Your task to perform on an android device: open app "Google Sheets" (install if not already installed) Image 0: 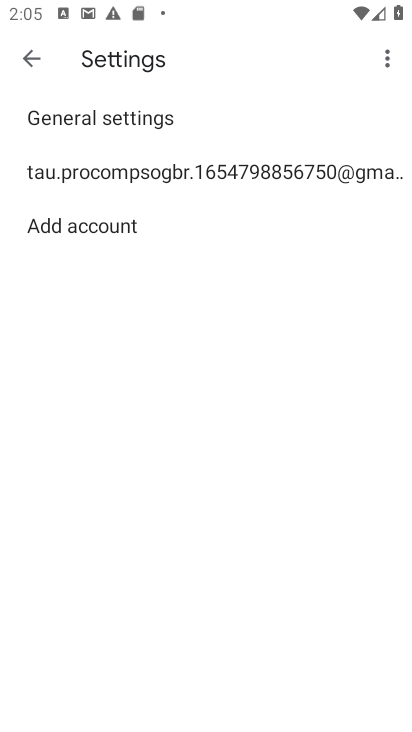
Step 0: click (226, 526)
Your task to perform on an android device: open app "Google Sheets" (install if not already installed) Image 1: 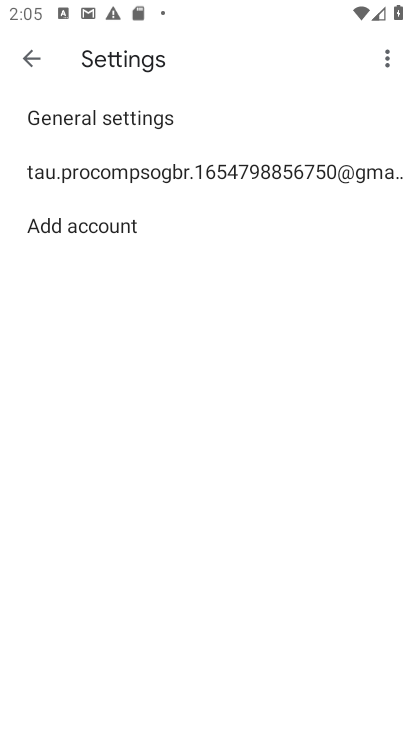
Step 1: press home button
Your task to perform on an android device: open app "Google Sheets" (install if not already installed) Image 2: 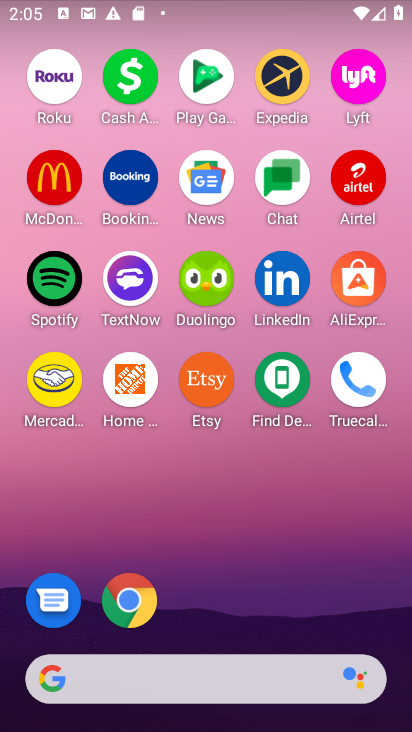
Step 2: drag from (242, 596) to (242, 95)
Your task to perform on an android device: open app "Google Sheets" (install if not already installed) Image 3: 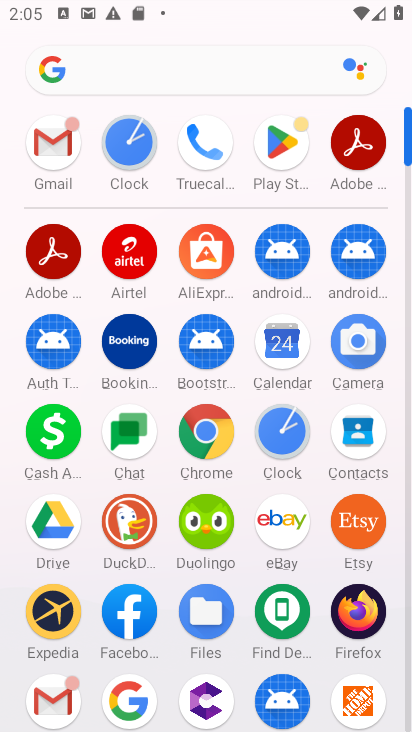
Step 3: click (280, 165)
Your task to perform on an android device: open app "Google Sheets" (install if not already installed) Image 4: 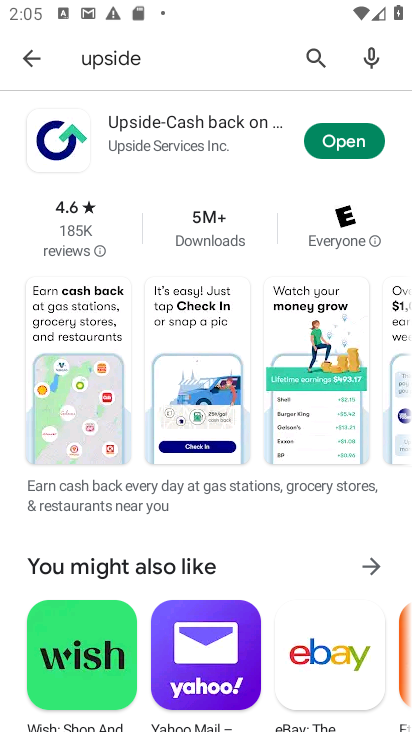
Step 4: click (308, 58)
Your task to perform on an android device: open app "Google Sheets" (install if not already installed) Image 5: 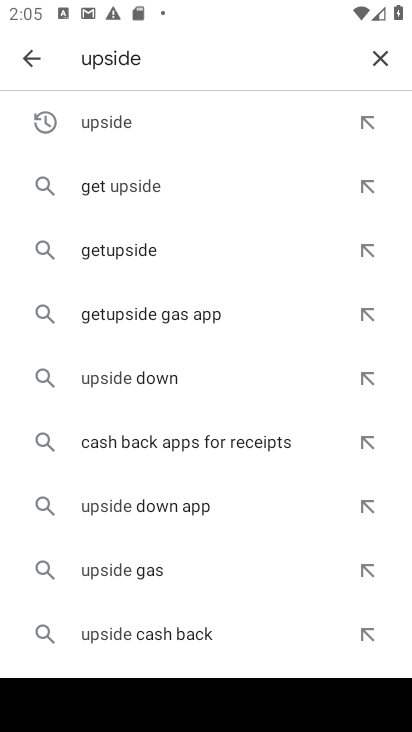
Step 5: click (370, 61)
Your task to perform on an android device: open app "Google Sheets" (install if not already installed) Image 6: 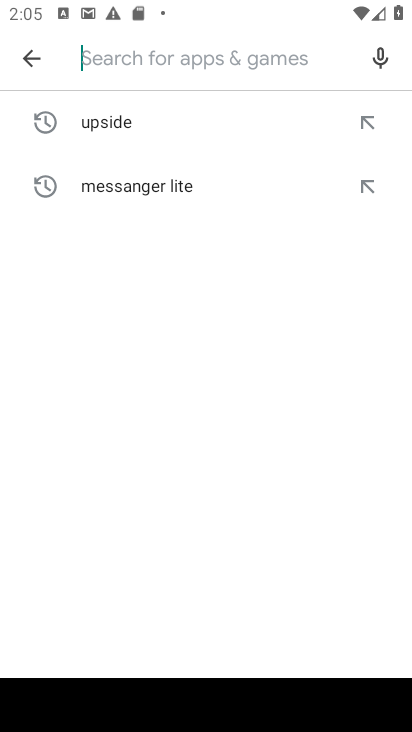
Step 6: type "google play"
Your task to perform on an android device: open app "Google Sheets" (install if not already installed) Image 7: 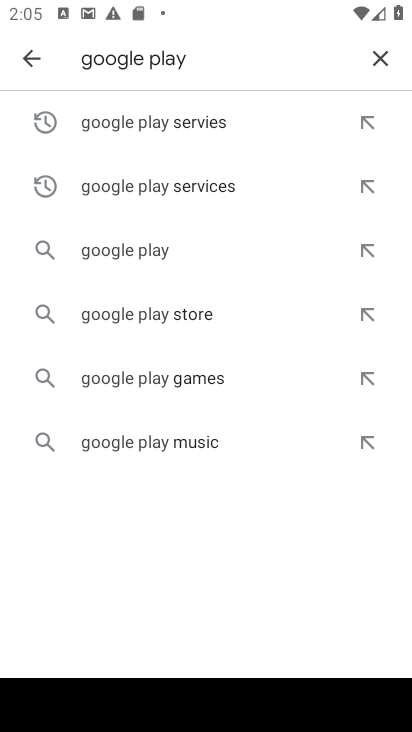
Step 7: click (218, 95)
Your task to perform on an android device: open app "Google Sheets" (install if not already installed) Image 8: 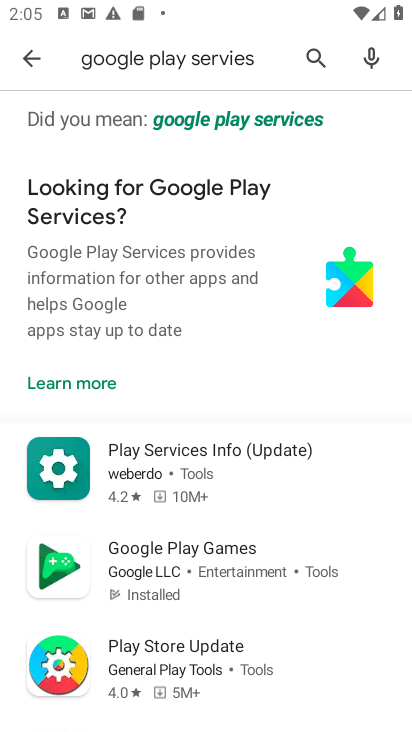
Step 8: click (309, 65)
Your task to perform on an android device: open app "Google Sheets" (install if not already installed) Image 9: 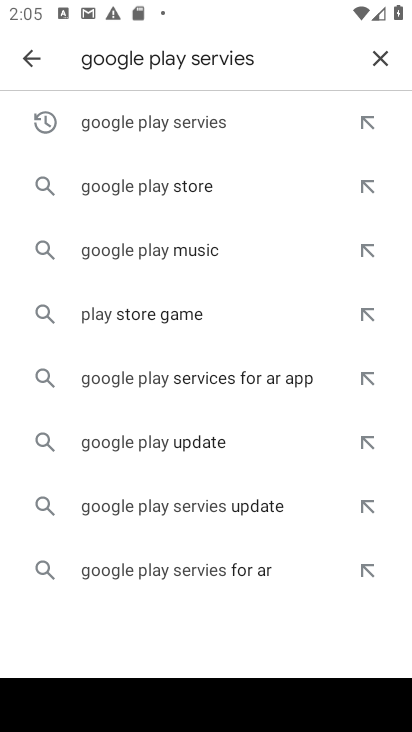
Step 9: click (365, 58)
Your task to perform on an android device: open app "Google Sheets" (install if not already installed) Image 10: 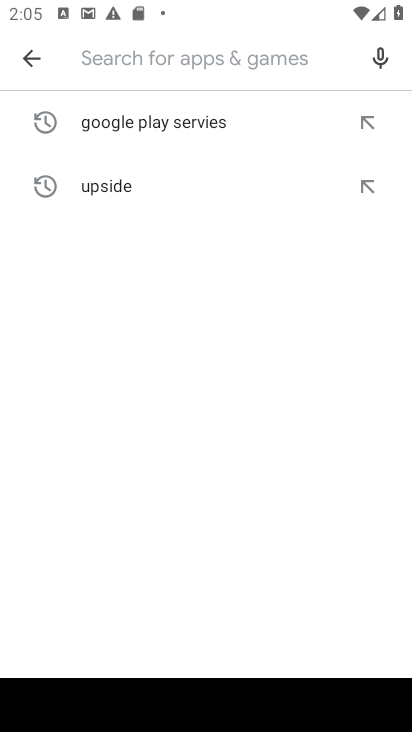
Step 10: type "google sheet"
Your task to perform on an android device: open app "Google Sheets" (install if not already installed) Image 11: 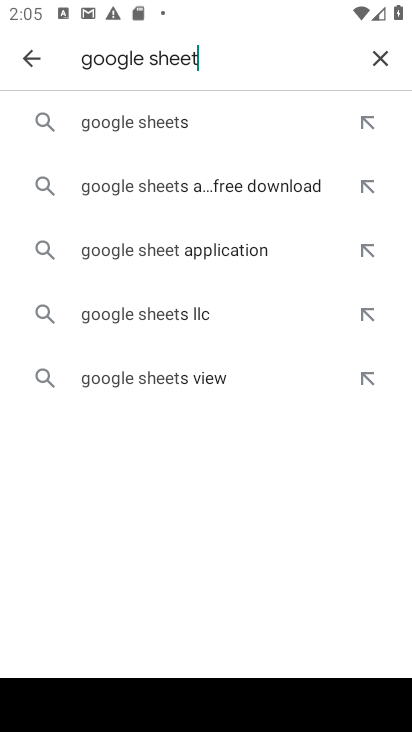
Step 11: click (200, 107)
Your task to perform on an android device: open app "Google Sheets" (install if not already installed) Image 12: 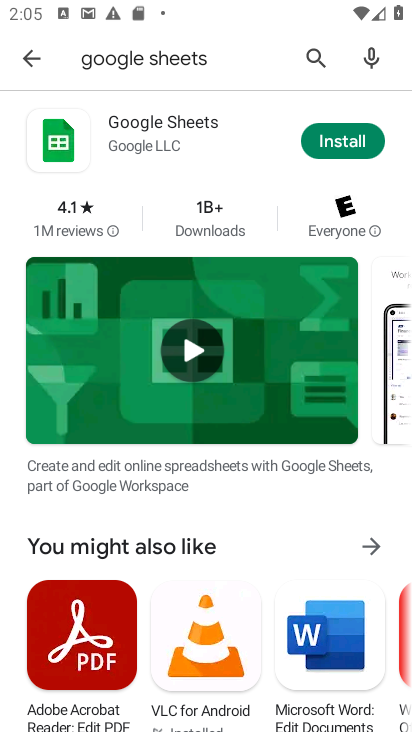
Step 12: click (310, 127)
Your task to perform on an android device: open app "Google Sheets" (install if not already installed) Image 13: 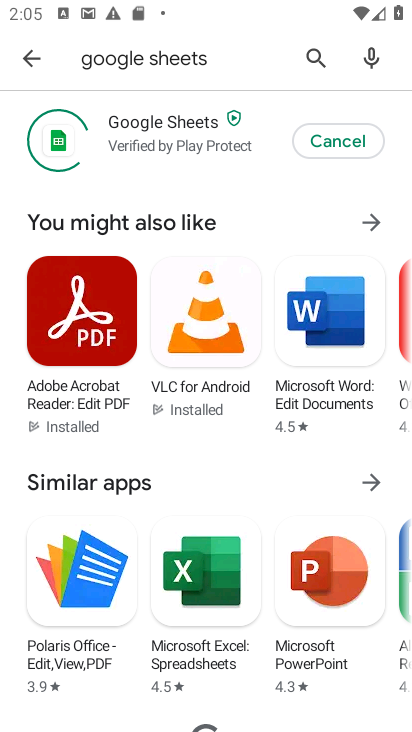
Step 13: task complete